Your task to perform on an android device: turn on airplane mode Image 0: 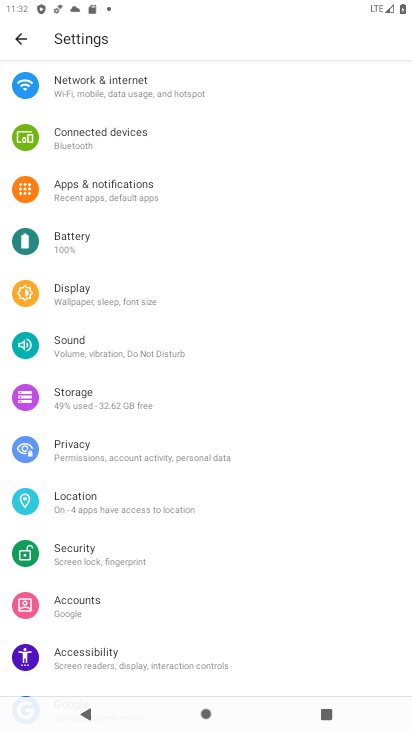
Step 0: click (121, 94)
Your task to perform on an android device: turn on airplane mode Image 1: 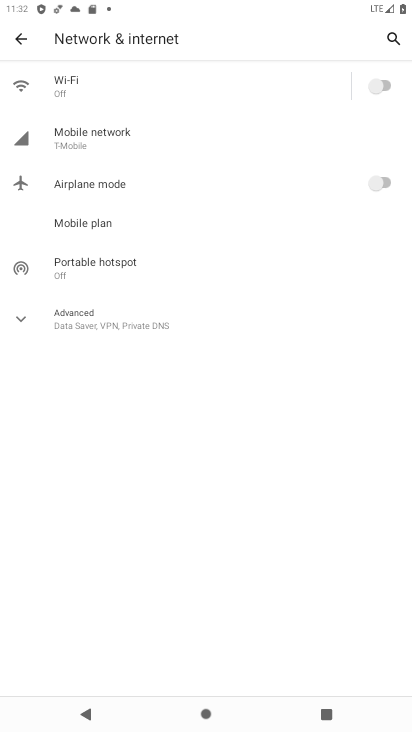
Step 1: click (382, 177)
Your task to perform on an android device: turn on airplane mode Image 2: 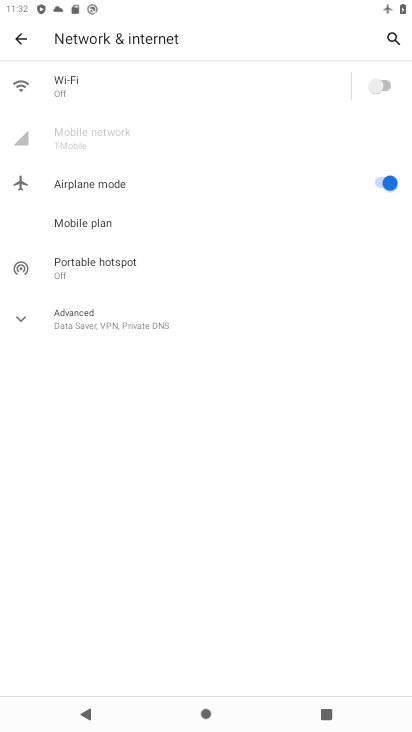
Step 2: task complete